Your task to perform on an android device: turn off priority inbox in the gmail app Image 0: 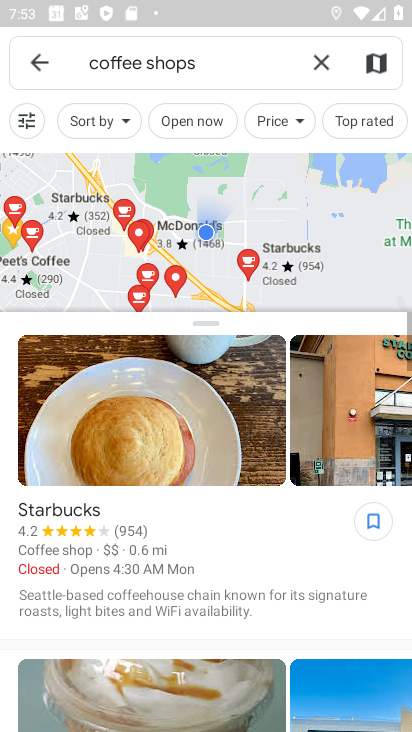
Step 0: press home button
Your task to perform on an android device: turn off priority inbox in the gmail app Image 1: 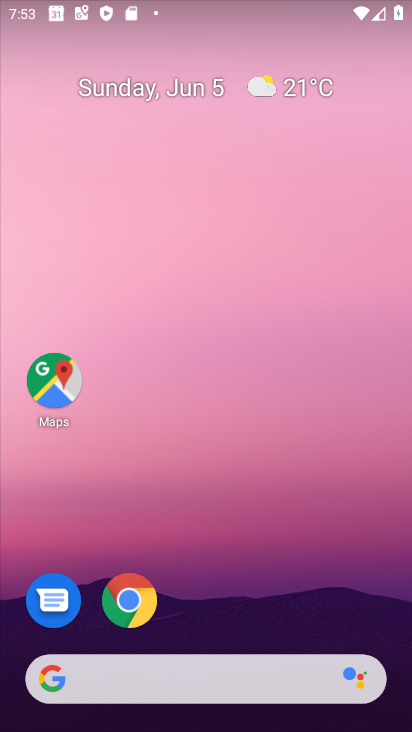
Step 1: drag from (148, 731) to (153, 113)
Your task to perform on an android device: turn off priority inbox in the gmail app Image 2: 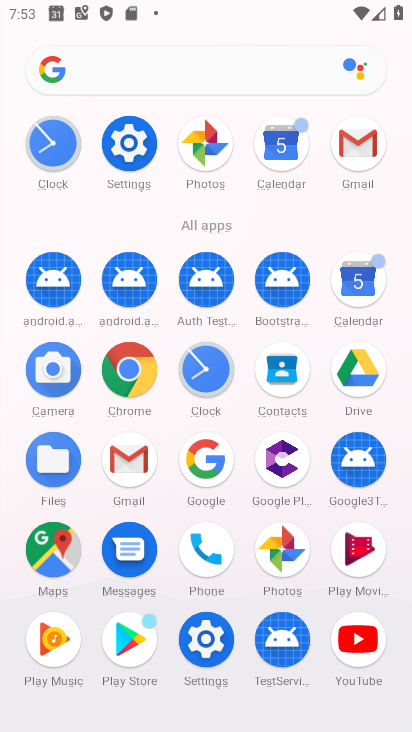
Step 2: click (356, 159)
Your task to perform on an android device: turn off priority inbox in the gmail app Image 3: 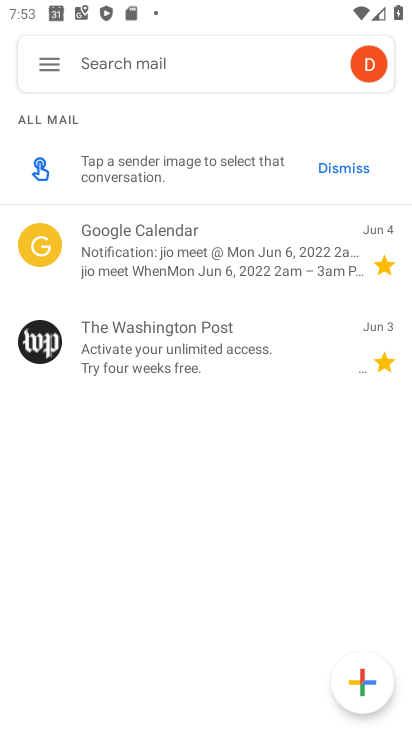
Step 3: click (48, 79)
Your task to perform on an android device: turn off priority inbox in the gmail app Image 4: 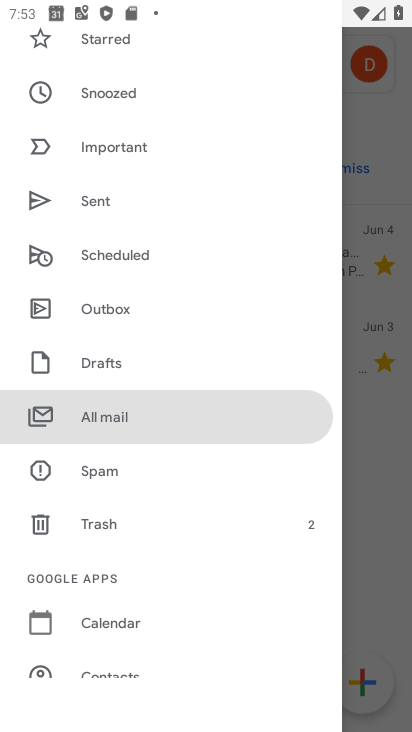
Step 4: drag from (167, 566) to (165, 197)
Your task to perform on an android device: turn off priority inbox in the gmail app Image 5: 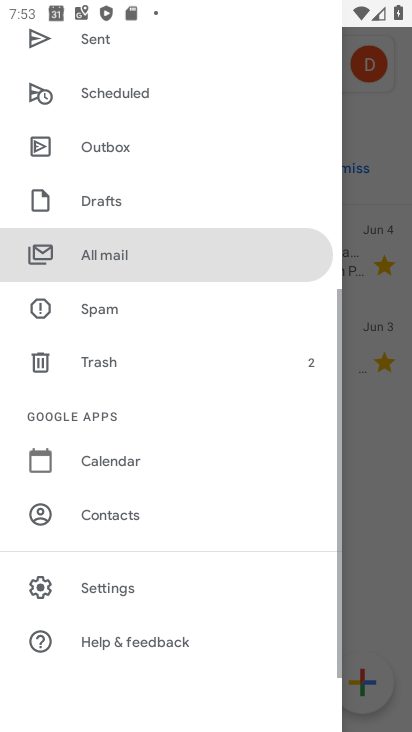
Step 5: click (111, 595)
Your task to perform on an android device: turn off priority inbox in the gmail app Image 6: 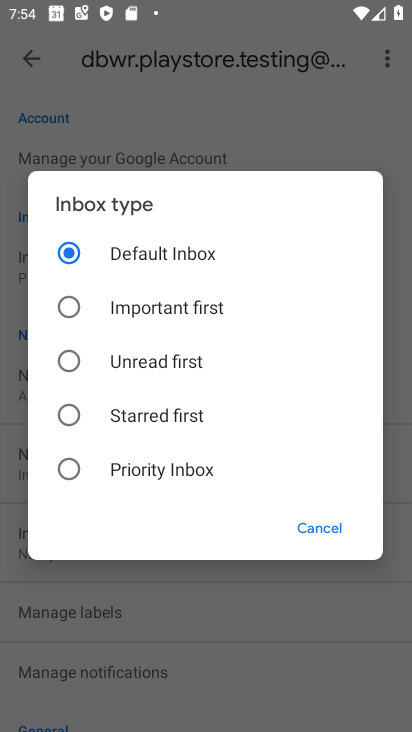
Step 6: task complete